Your task to perform on an android device: toggle sleep mode Image 0: 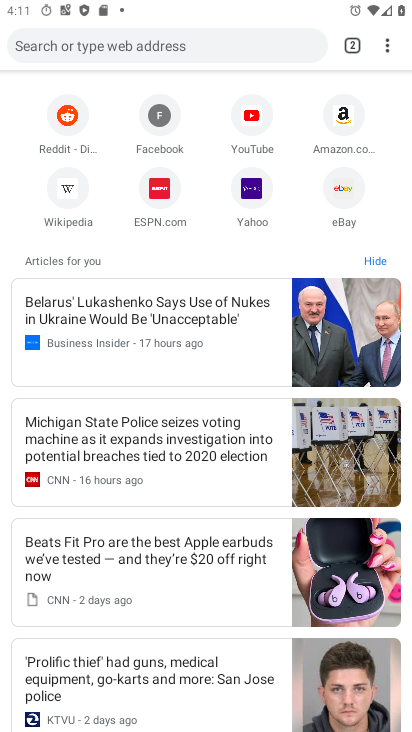
Step 0: press home button
Your task to perform on an android device: toggle sleep mode Image 1: 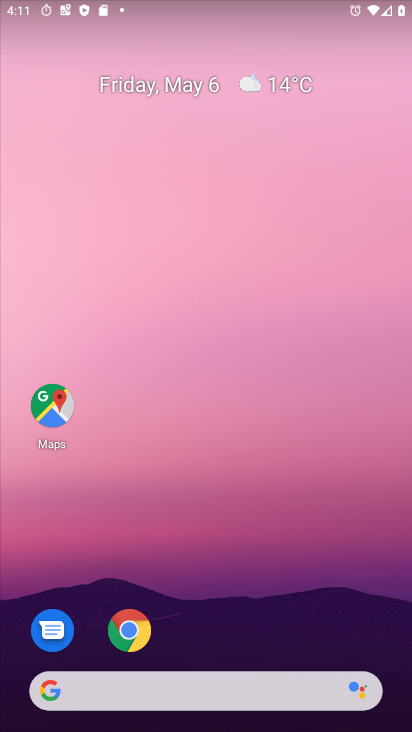
Step 1: drag from (210, 646) to (270, 83)
Your task to perform on an android device: toggle sleep mode Image 2: 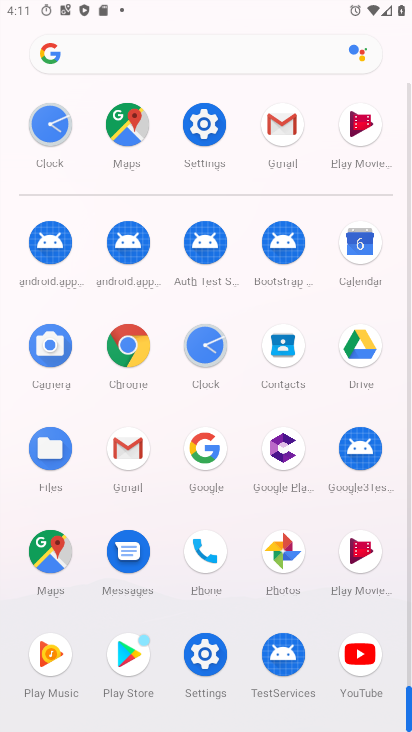
Step 2: click (202, 133)
Your task to perform on an android device: toggle sleep mode Image 3: 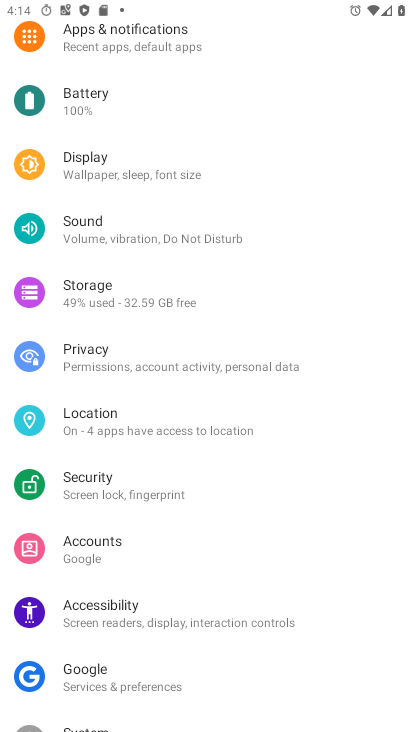
Step 3: task complete